Your task to perform on an android device: Open the Play Movies app and select the watchlist tab. Image 0: 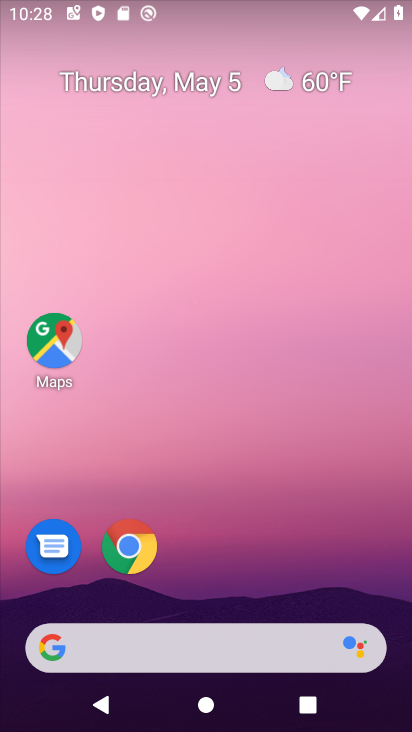
Step 0: drag from (204, 601) to (236, 226)
Your task to perform on an android device: Open the Play Movies app and select the watchlist tab. Image 1: 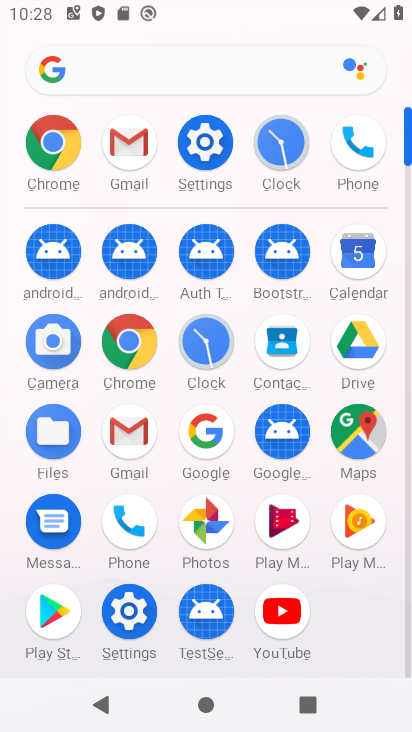
Step 1: click (284, 524)
Your task to perform on an android device: Open the Play Movies app and select the watchlist tab. Image 2: 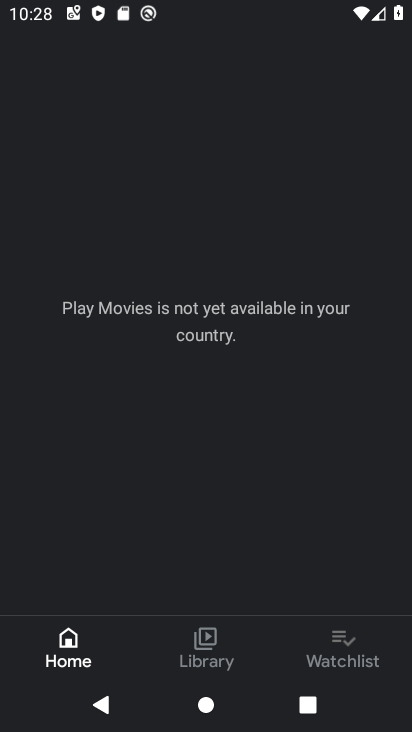
Step 2: click (328, 637)
Your task to perform on an android device: Open the Play Movies app and select the watchlist tab. Image 3: 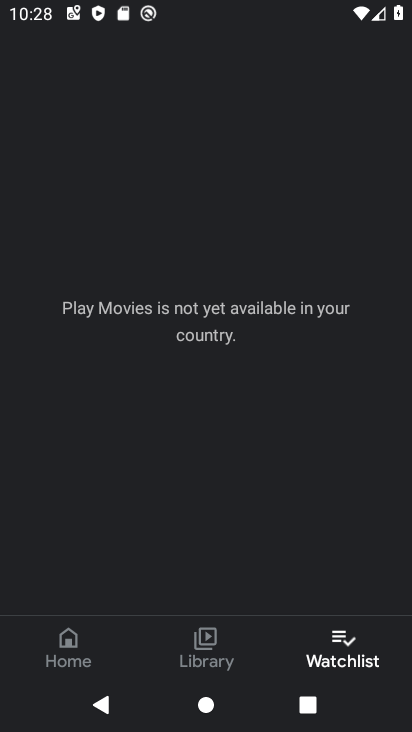
Step 3: task complete